Your task to perform on an android device: Check the news Image 0: 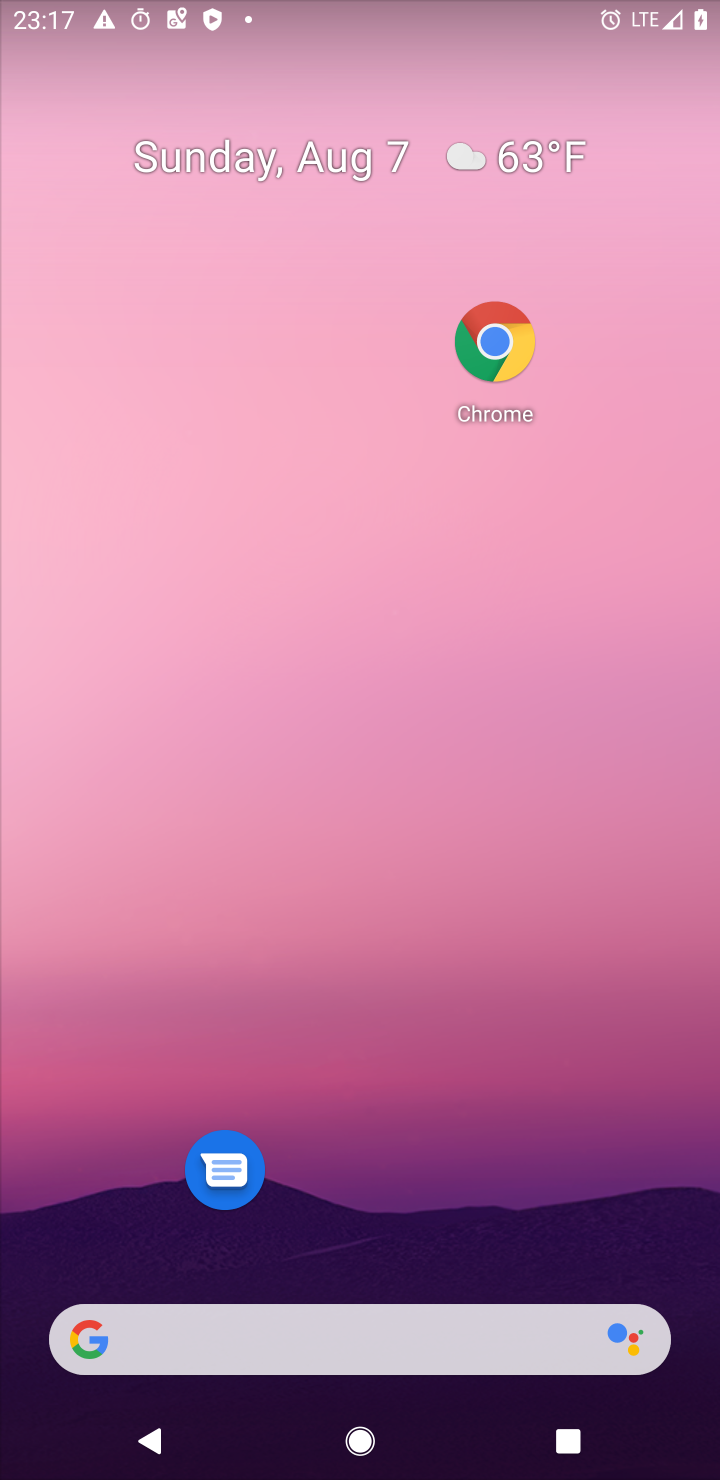
Step 0: drag from (302, 1310) to (291, 0)
Your task to perform on an android device: Check the news Image 1: 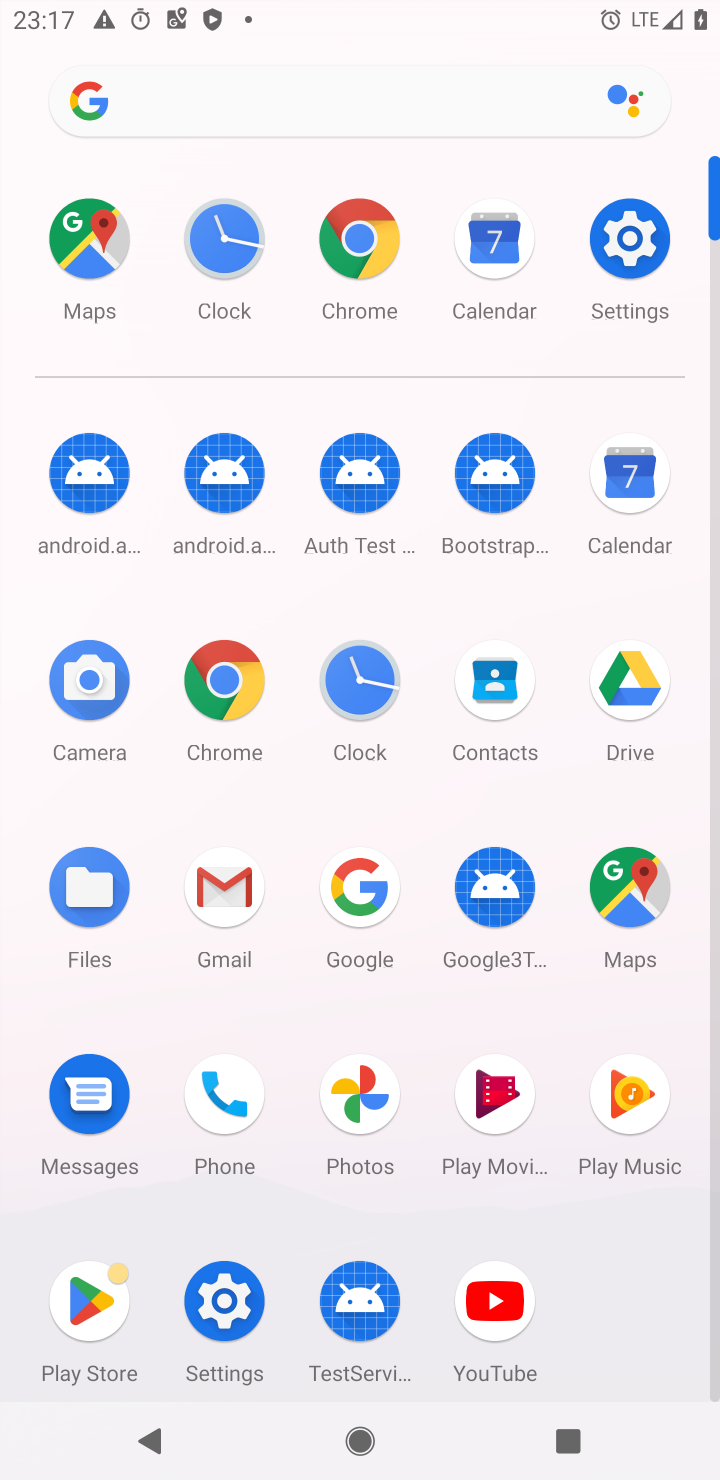
Step 1: click (229, 675)
Your task to perform on an android device: Check the news Image 2: 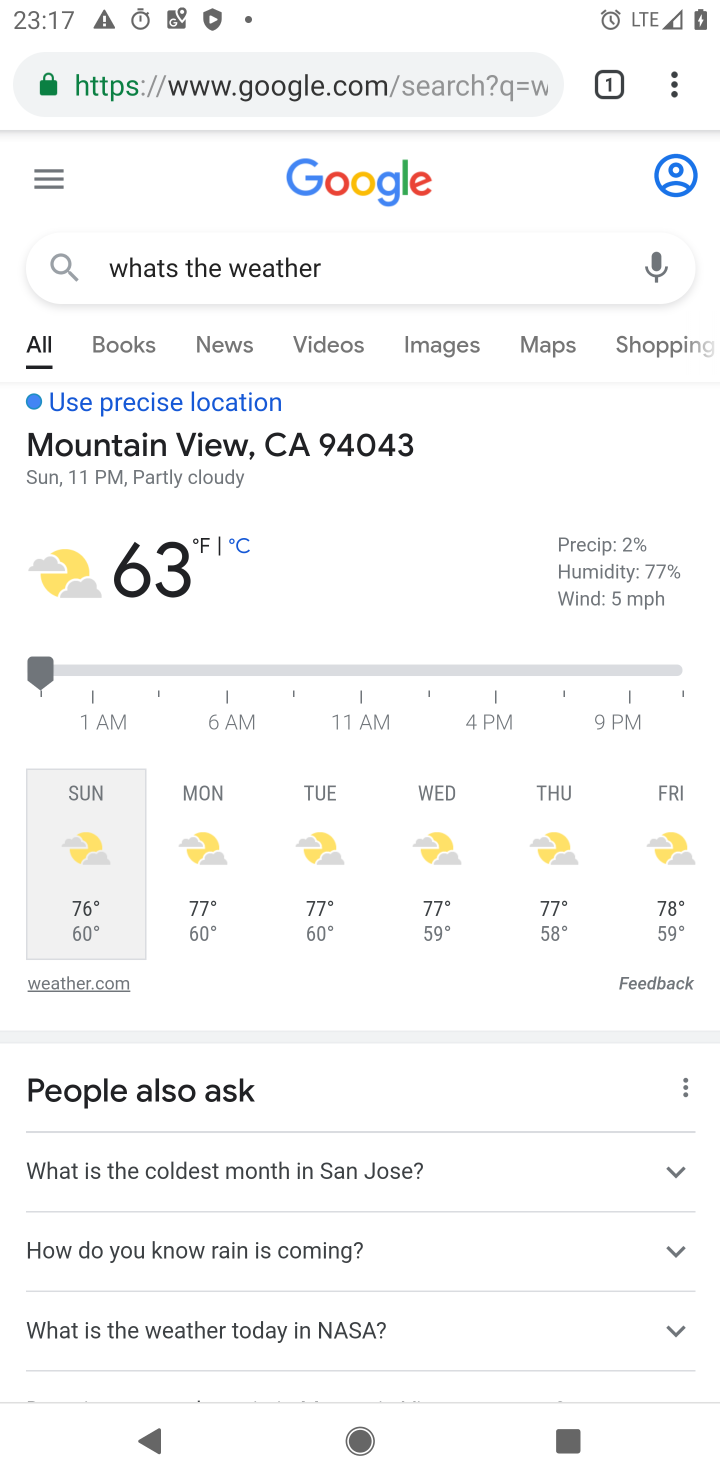
Step 2: click (318, 91)
Your task to perform on an android device: Check the news Image 3: 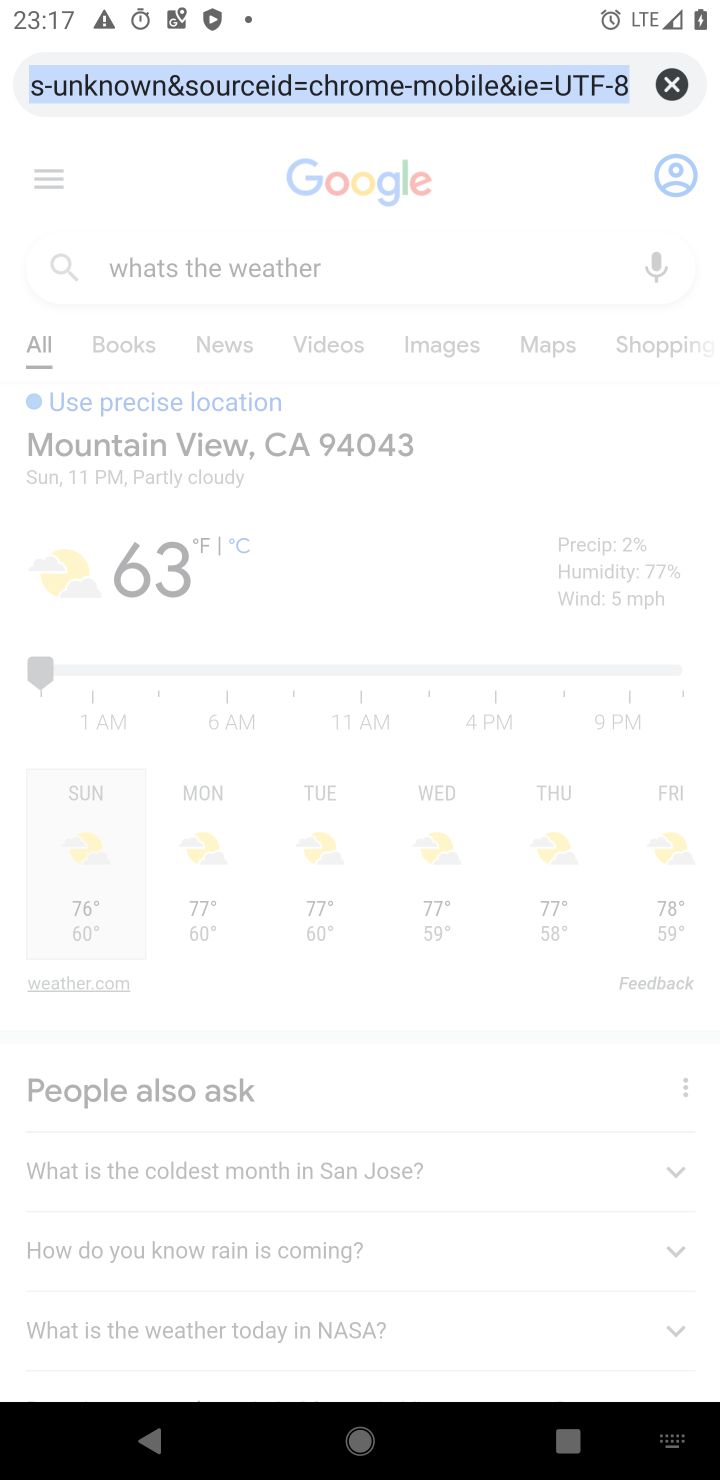
Step 3: type "check the news"
Your task to perform on an android device: Check the news Image 4: 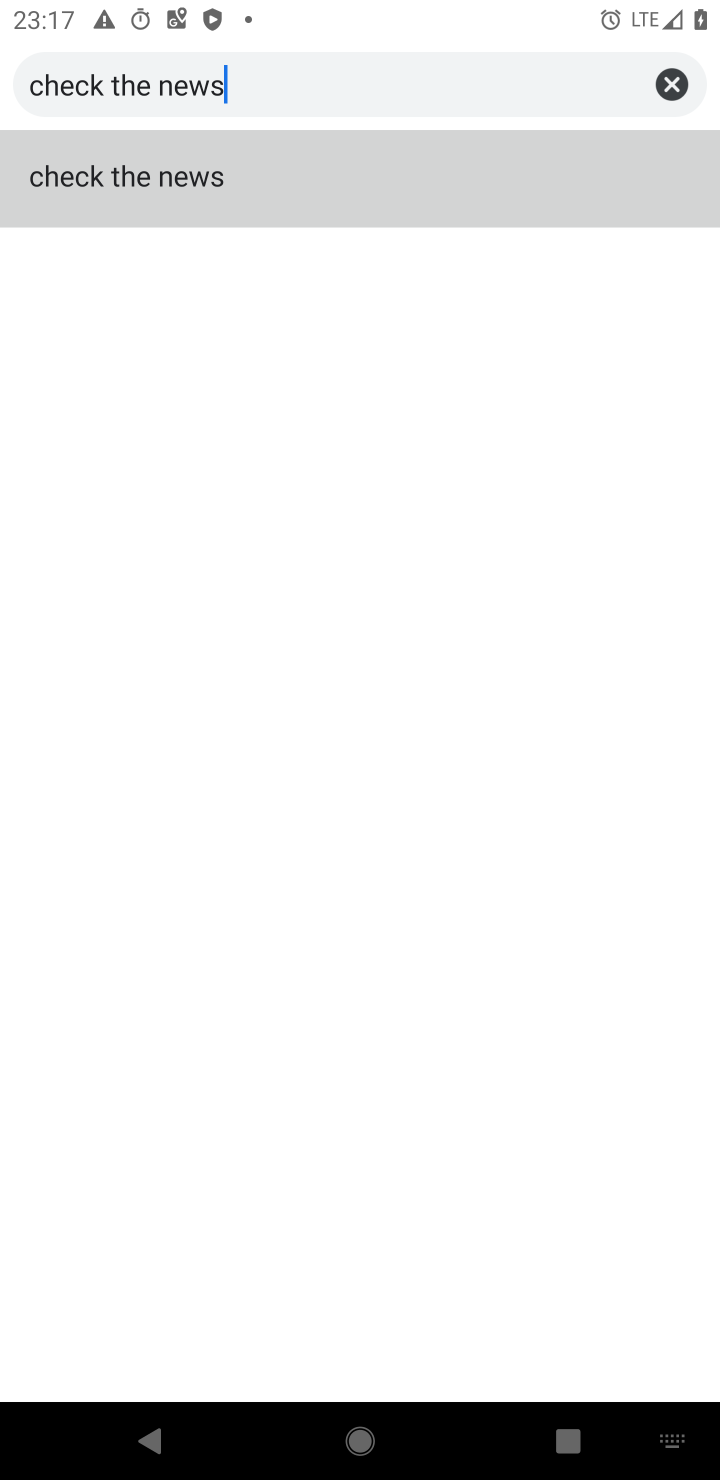
Step 4: click (283, 179)
Your task to perform on an android device: Check the news Image 5: 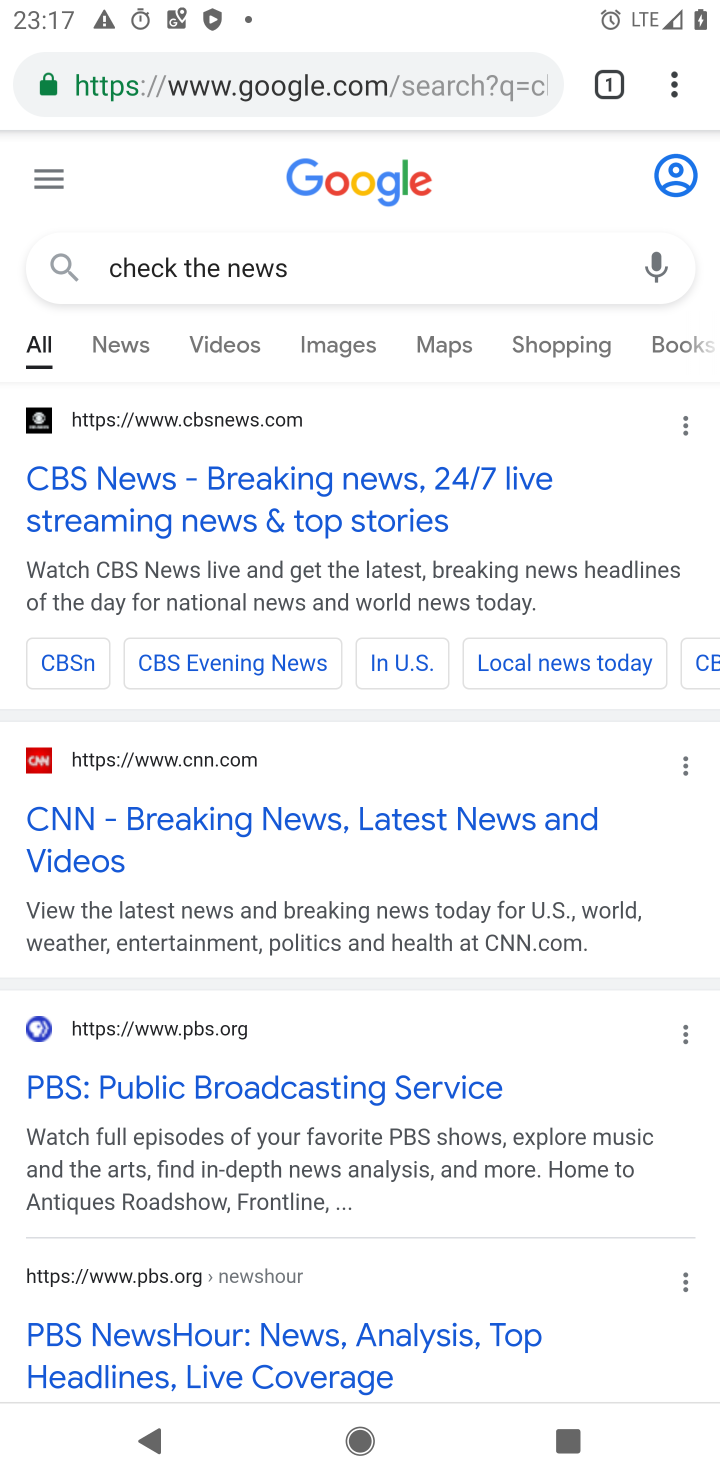
Step 5: task complete